Your task to perform on an android device: Open the calendar and show me this week's events? Image 0: 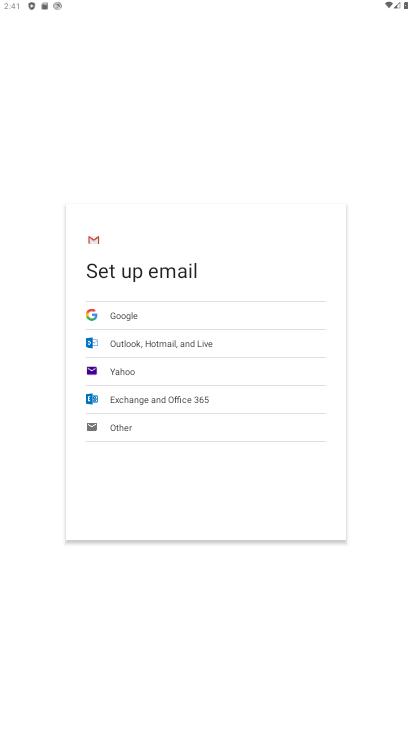
Step 0: press home button
Your task to perform on an android device: Open the calendar and show me this week's events? Image 1: 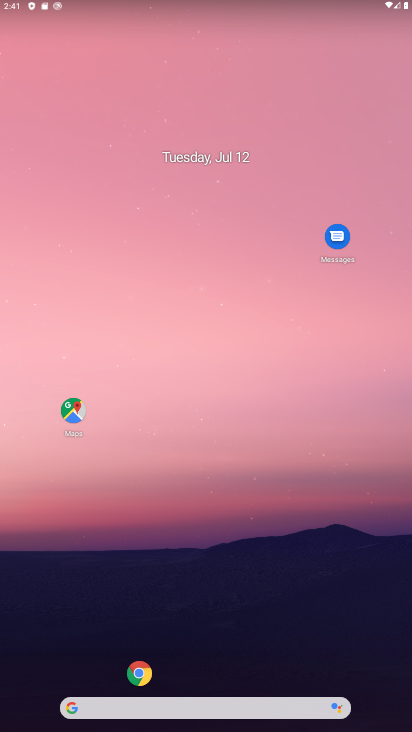
Step 1: drag from (30, 708) to (167, 78)
Your task to perform on an android device: Open the calendar and show me this week's events? Image 2: 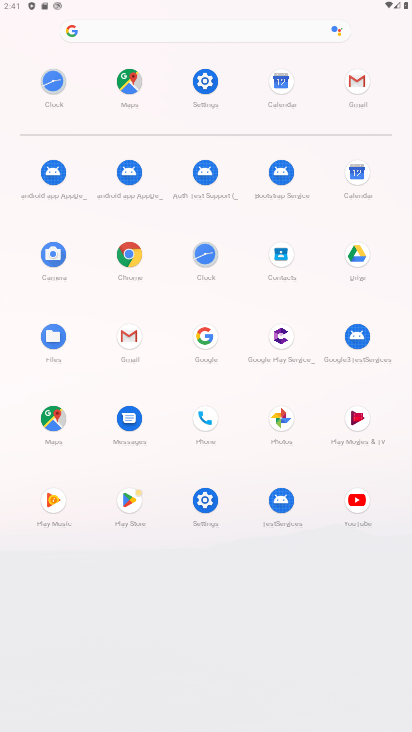
Step 2: click (353, 184)
Your task to perform on an android device: Open the calendar and show me this week's events? Image 3: 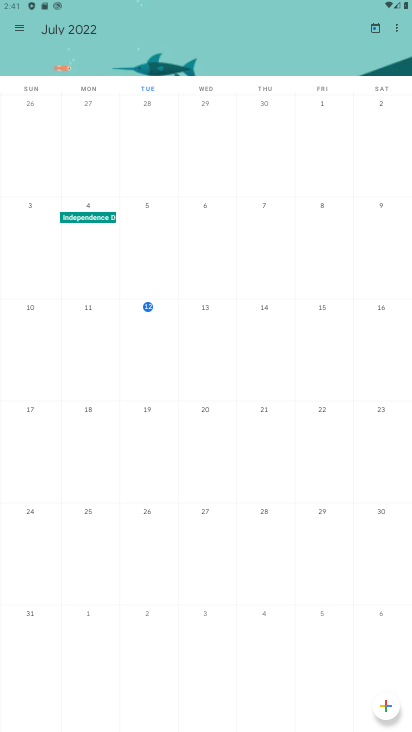
Step 3: click (23, 30)
Your task to perform on an android device: Open the calendar and show me this week's events? Image 4: 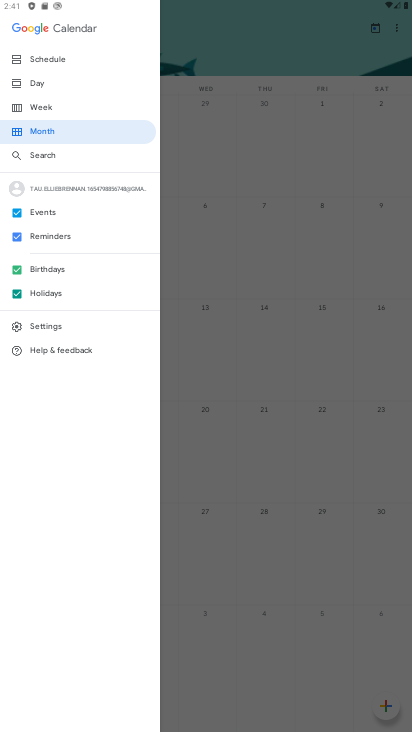
Step 4: task complete